Your task to perform on an android device: Play the last video I watched on Youtube Image 0: 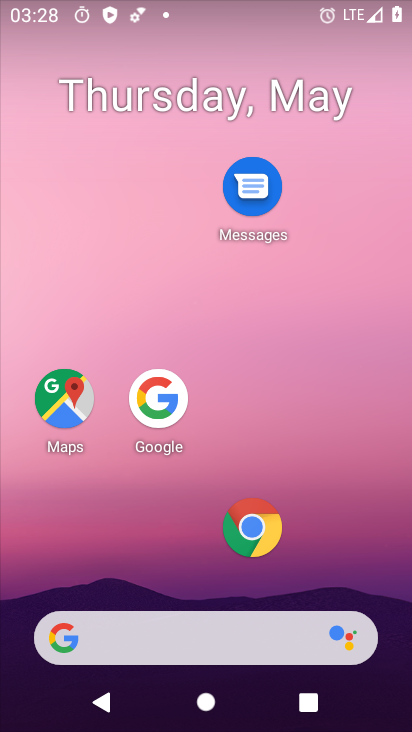
Step 0: drag from (161, 568) to (199, 133)
Your task to perform on an android device: Play the last video I watched on Youtube Image 1: 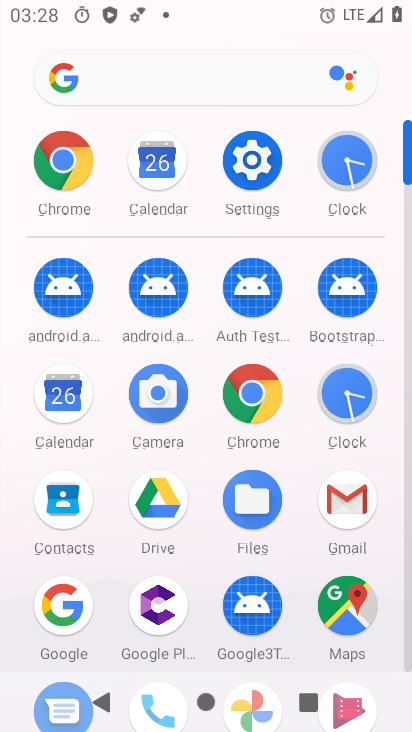
Step 1: drag from (202, 546) to (234, 196)
Your task to perform on an android device: Play the last video I watched on Youtube Image 2: 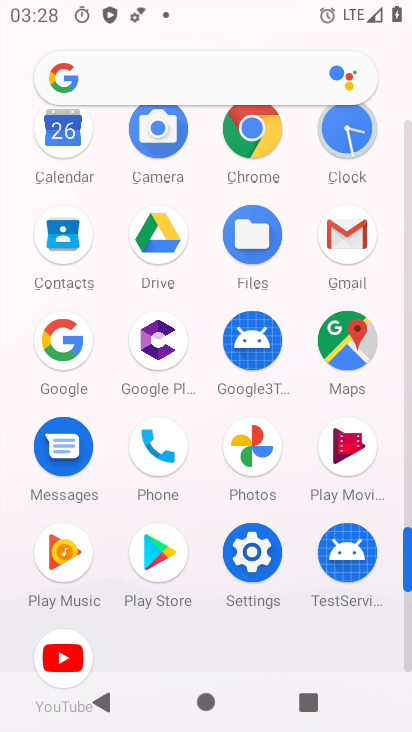
Step 2: click (49, 653)
Your task to perform on an android device: Play the last video I watched on Youtube Image 3: 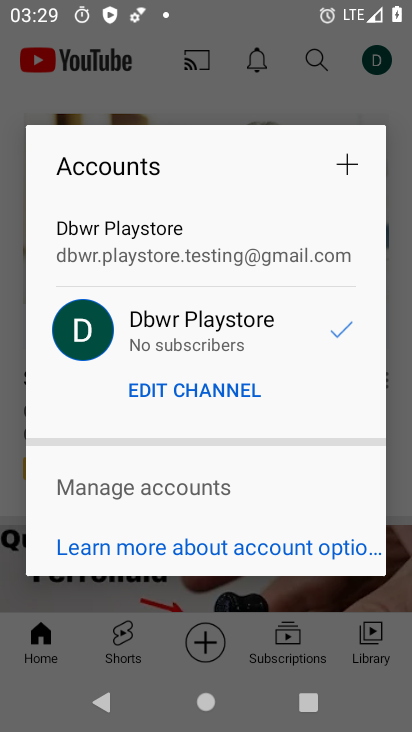
Step 3: press home button
Your task to perform on an android device: Play the last video I watched on Youtube Image 4: 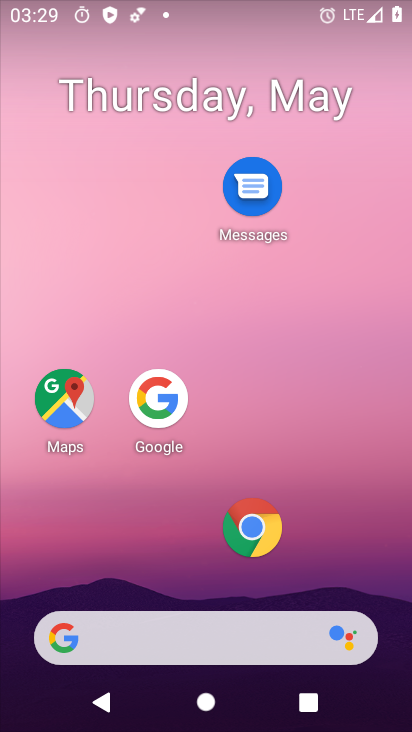
Step 4: drag from (201, 581) to (283, 153)
Your task to perform on an android device: Play the last video I watched on Youtube Image 5: 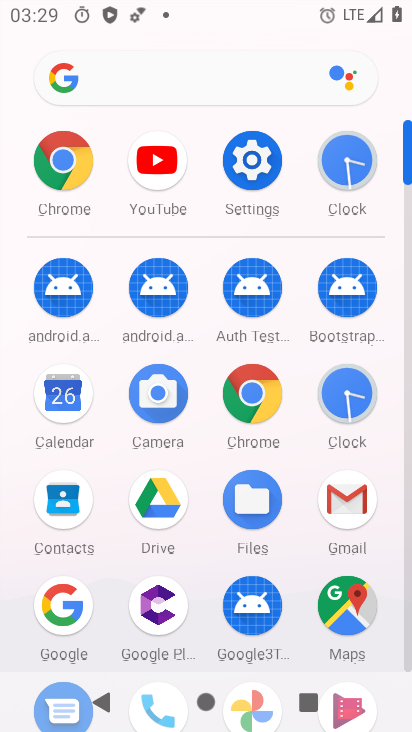
Step 5: click (162, 169)
Your task to perform on an android device: Play the last video I watched on Youtube Image 6: 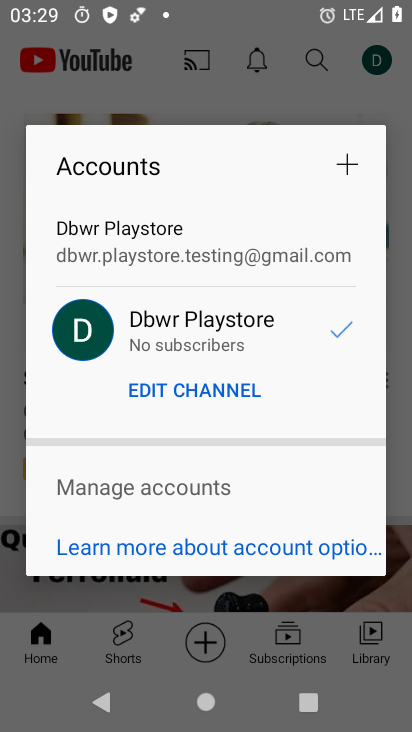
Step 6: press back button
Your task to perform on an android device: Play the last video I watched on Youtube Image 7: 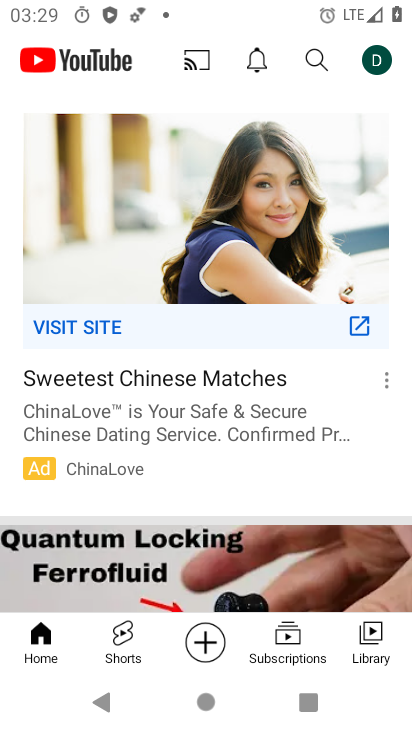
Step 7: click (367, 644)
Your task to perform on an android device: Play the last video I watched on Youtube Image 8: 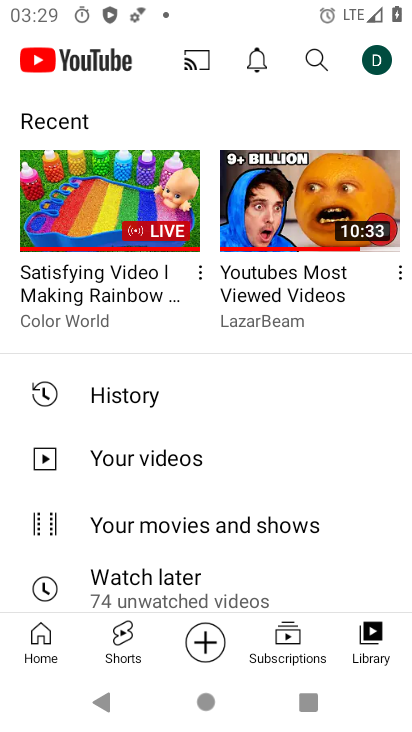
Step 8: click (106, 194)
Your task to perform on an android device: Play the last video I watched on Youtube Image 9: 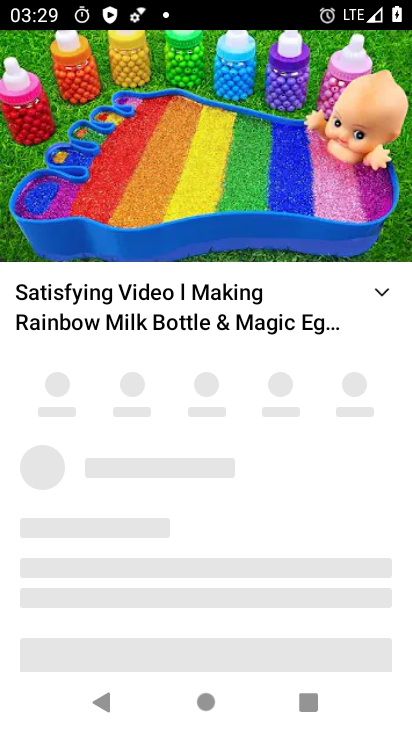
Step 9: task complete